Your task to perform on an android device: Open Yahoo.com Image 0: 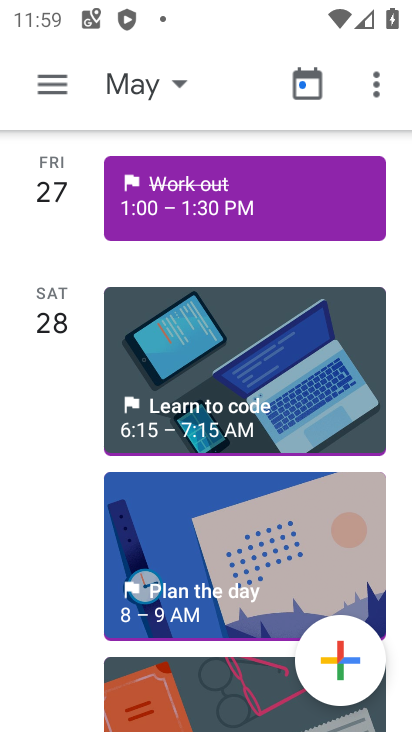
Step 0: press home button
Your task to perform on an android device: Open Yahoo.com Image 1: 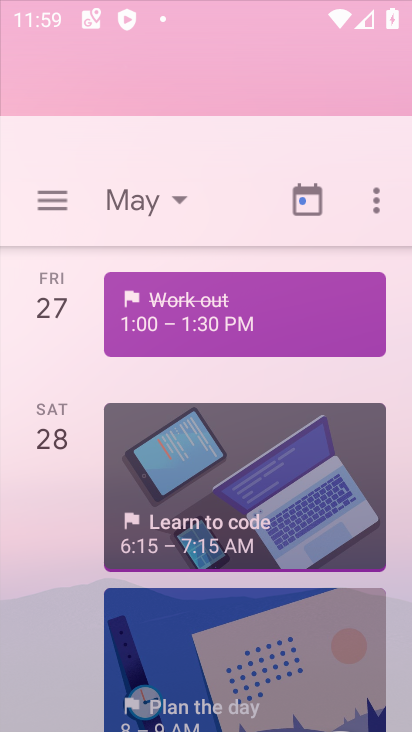
Step 1: drag from (265, 615) to (289, 9)
Your task to perform on an android device: Open Yahoo.com Image 2: 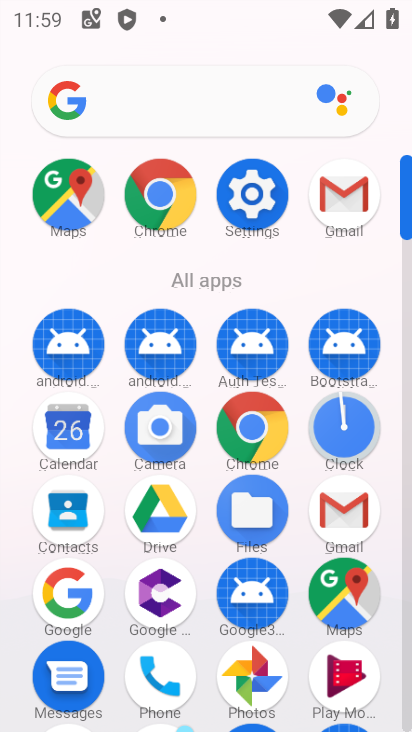
Step 2: click (156, 115)
Your task to perform on an android device: Open Yahoo.com Image 3: 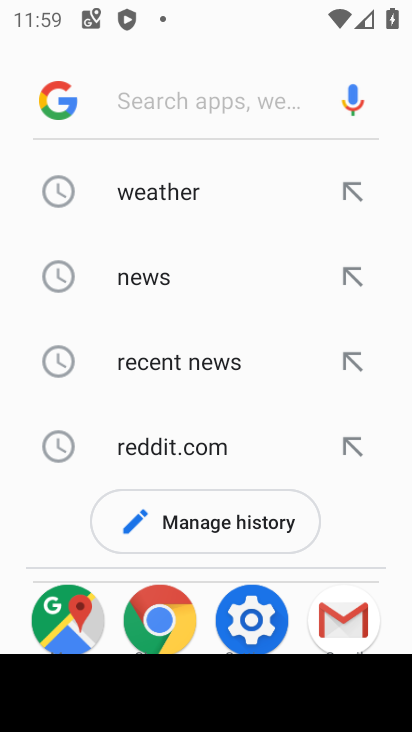
Step 3: type "Yahoo.com"
Your task to perform on an android device: Open Yahoo.com Image 4: 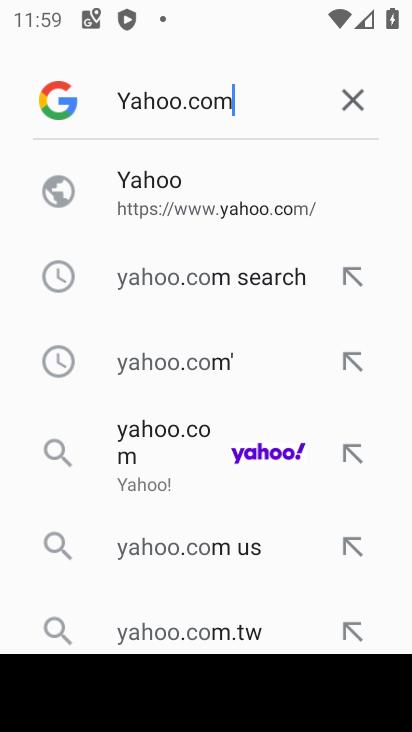
Step 4: type ""
Your task to perform on an android device: Open Yahoo.com Image 5: 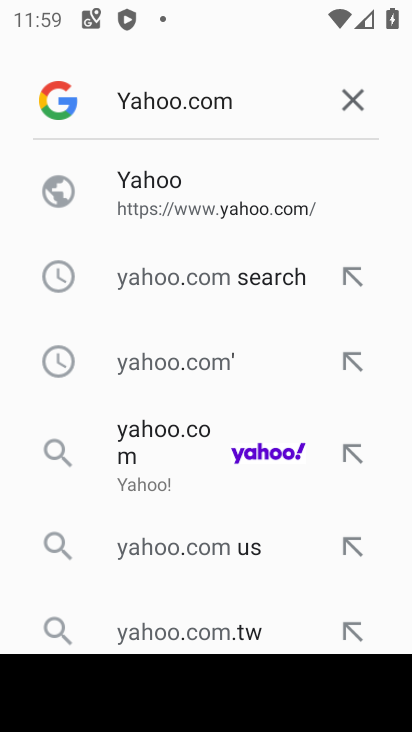
Step 5: click (232, 450)
Your task to perform on an android device: Open Yahoo.com Image 6: 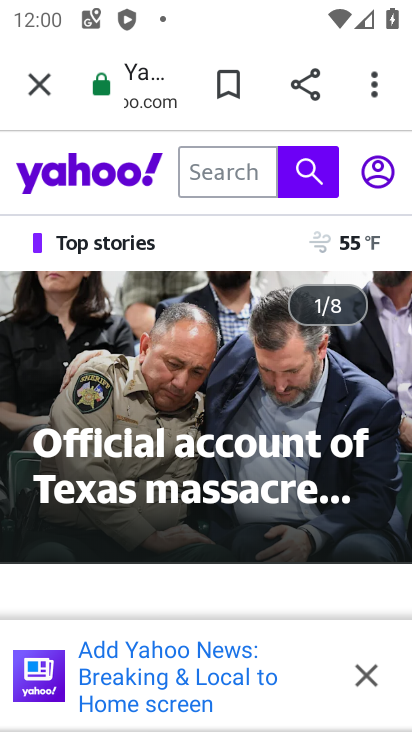
Step 6: task complete